Your task to perform on an android device: turn on priority inbox in the gmail app Image 0: 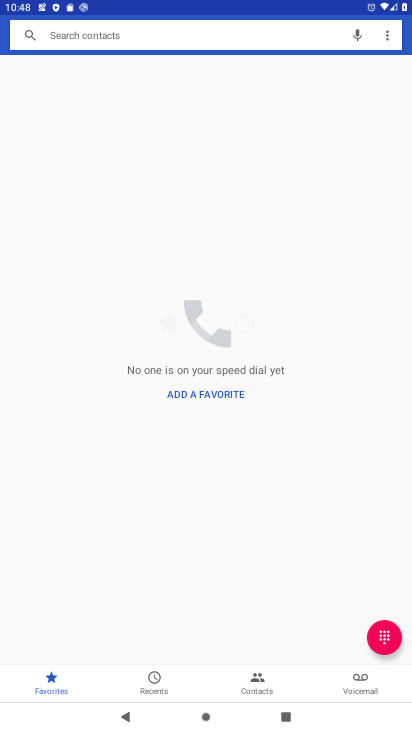
Step 0: press home button
Your task to perform on an android device: turn on priority inbox in the gmail app Image 1: 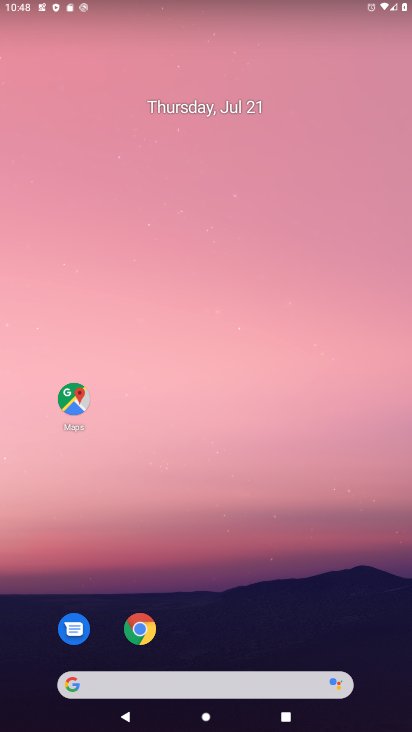
Step 1: drag from (311, 591) to (333, 65)
Your task to perform on an android device: turn on priority inbox in the gmail app Image 2: 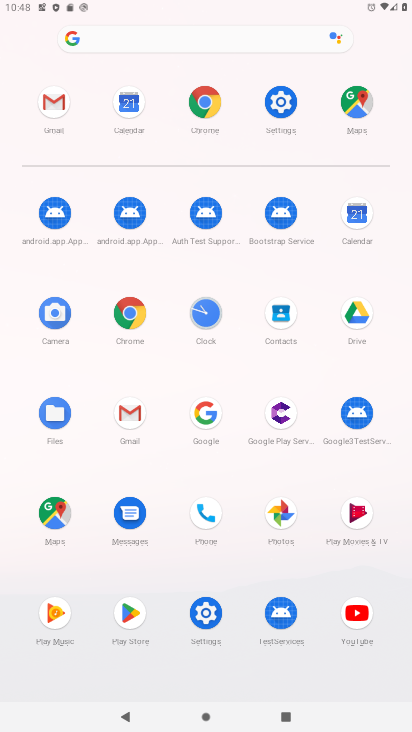
Step 2: click (121, 407)
Your task to perform on an android device: turn on priority inbox in the gmail app Image 3: 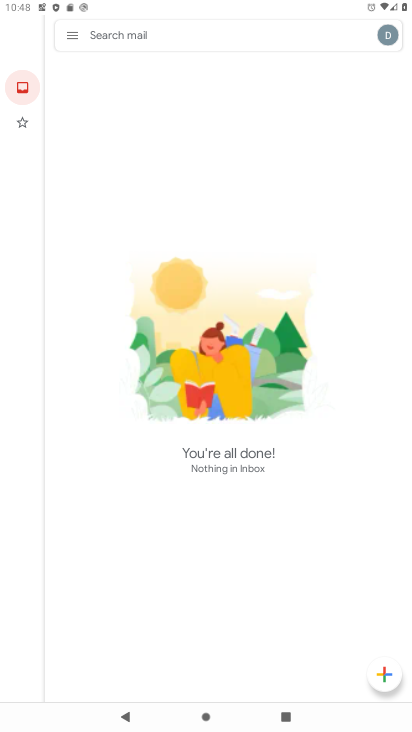
Step 3: click (66, 30)
Your task to perform on an android device: turn on priority inbox in the gmail app Image 4: 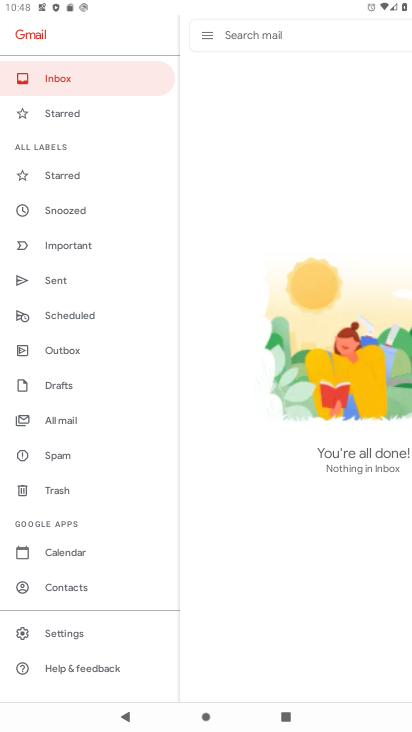
Step 4: click (66, 627)
Your task to perform on an android device: turn on priority inbox in the gmail app Image 5: 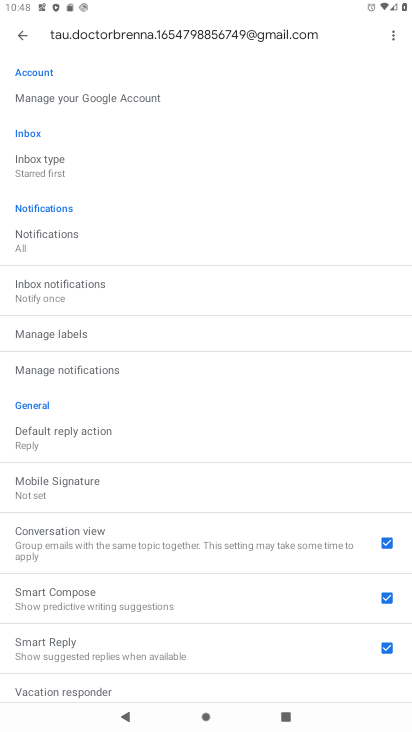
Step 5: drag from (187, 628) to (269, 216)
Your task to perform on an android device: turn on priority inbox in the gmail app Image 6: 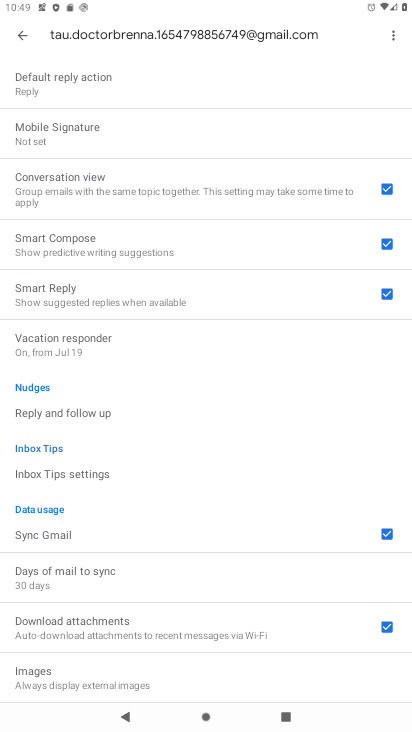
Step 6: drag from (148, 52) to (120, 597)
Your task to perform on an android device: turn on priority inbox in the gmail app Image 7: 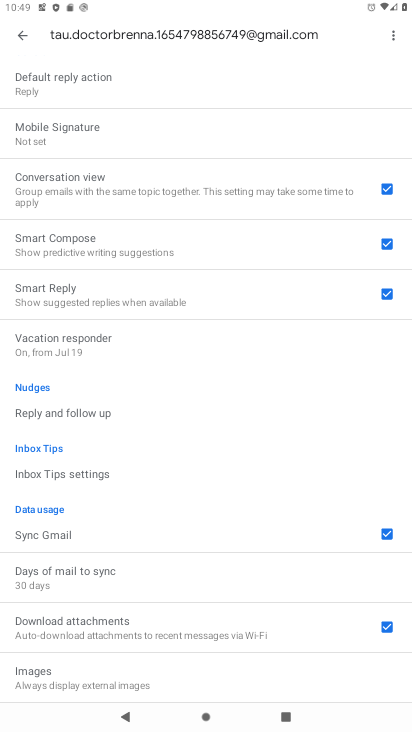
Step 7: drag from (160, 95) to (143, 682)
Your task to perform on an android device: turn on priority inbox in the gmail app Image 8: 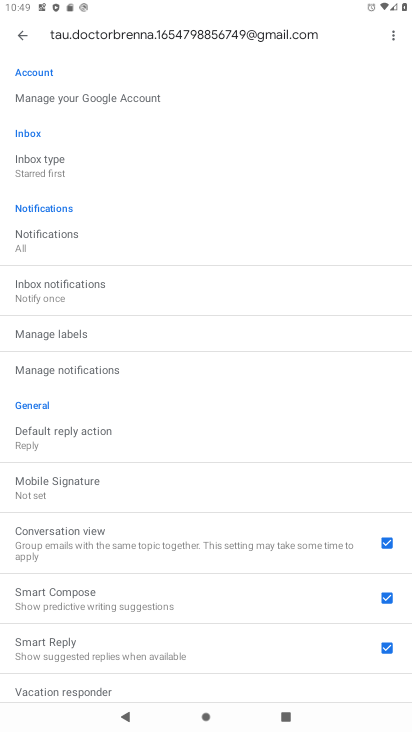
Step 8: click (43, 166)
Your task to perform on an android device: turn on priority inbox in the gmail app Image 9: 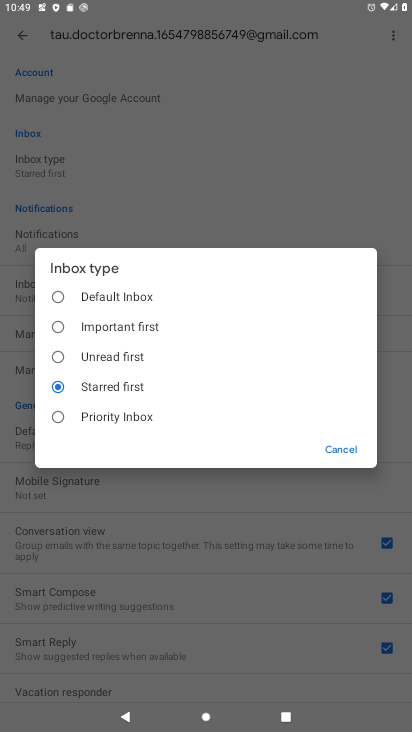
Step 9: click (86, 413)
Your task to perform on an android device: turn on priority inbox in the gmail app Image 10: 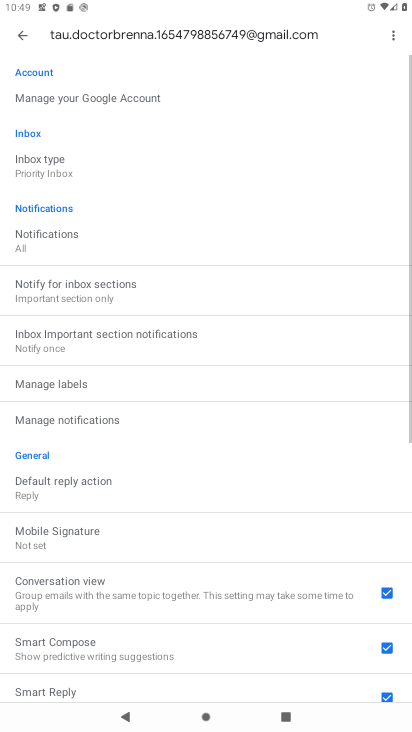
Step 10: task complete